Your task to perform on an android device: What is the news today? Image 0: 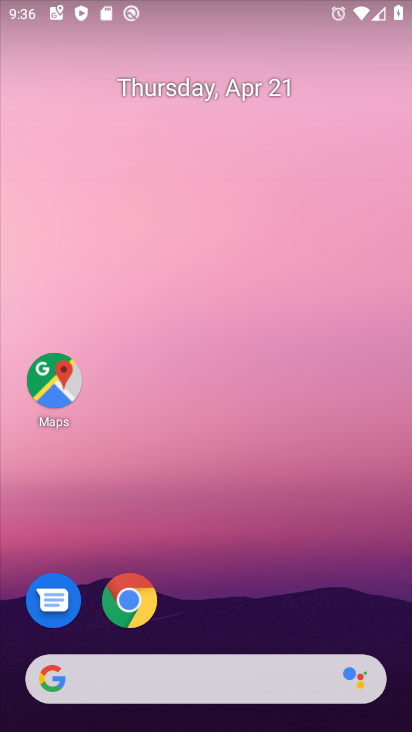
Step 0: drag from (235, 585) to (233, 52)
Your task to perform on an android device: What is the news today? Image 1: 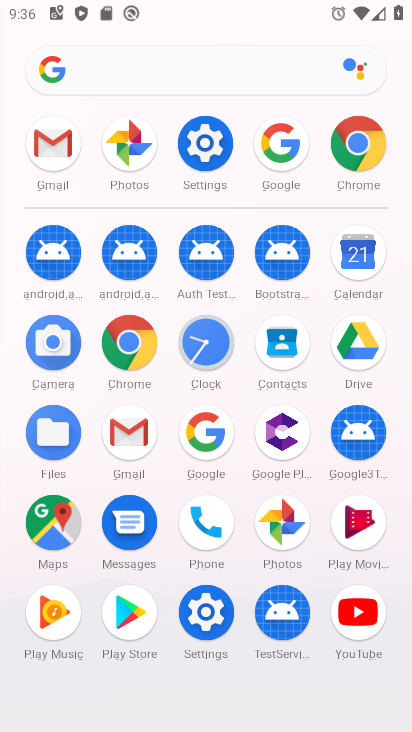
Step 1: click (201, 439)
Your task to perform on an android device: What is the news today? Image 2: 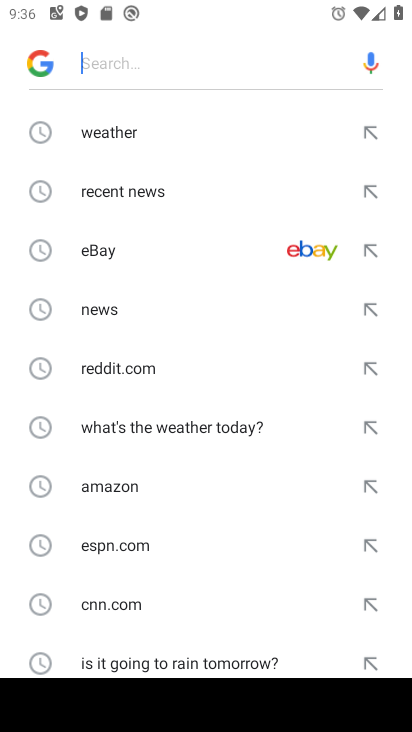
Step 2: type "news today"
Your task to perform on an android device: What is the news today? Image 3: 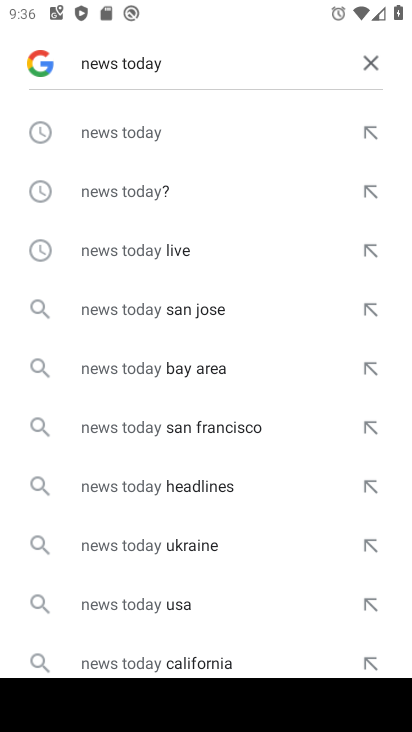
Step 3: click (122, 138)
Your task to perform on an android device: What is the news today? Image 4: 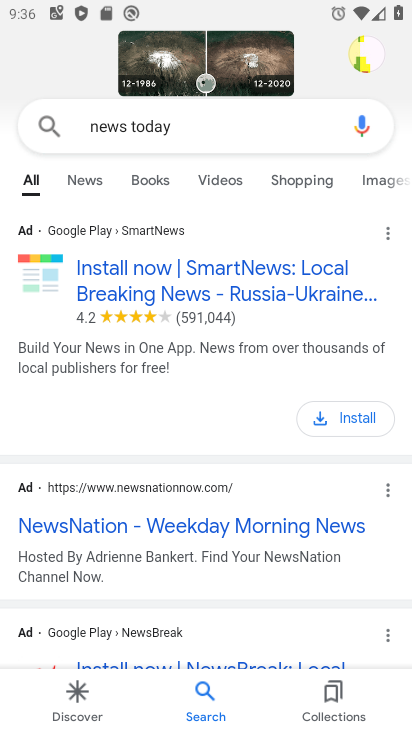
Step 4: task complete